Your task to perform on an android device: Go to Android settings Image 0: 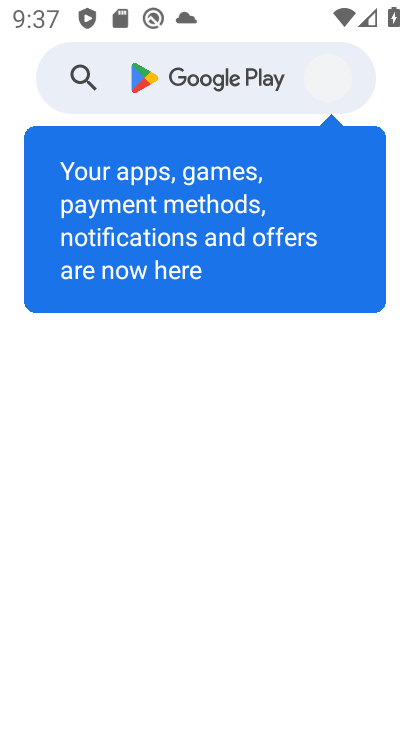
Step 0: press home button
Your task to perform on an android device: Go to Android settings Image 1: 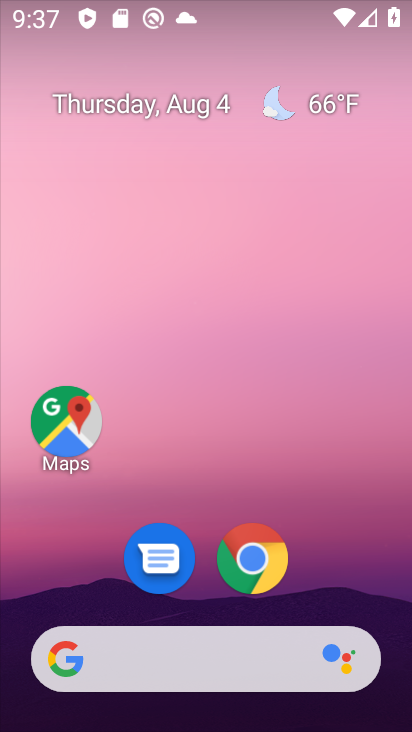
Step 1: drag from (357, 565) to (317, 21)
Your task to perform on an android device: Go to Android settings Image 2: 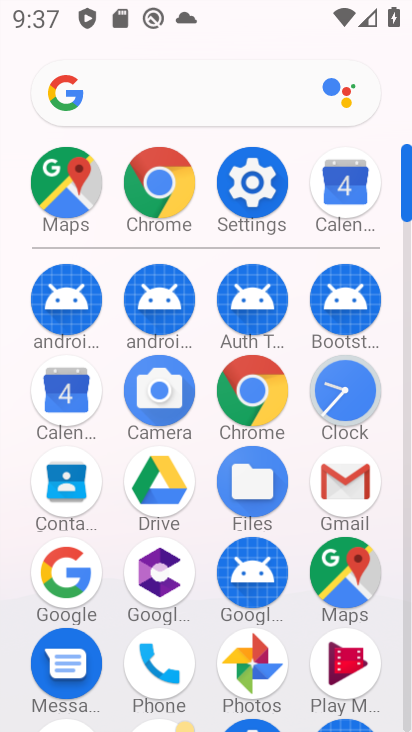
Step 2: drag from (196, 598) to (211, 314)
Your task to perform on an android device: Go to Android settings Image 3: 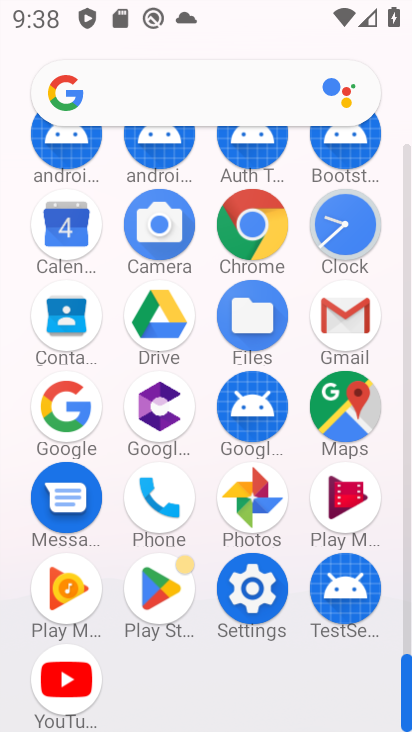
Step 3: click (254, 600)
Your task to perform on an android device: Go to Android settings Image 4: 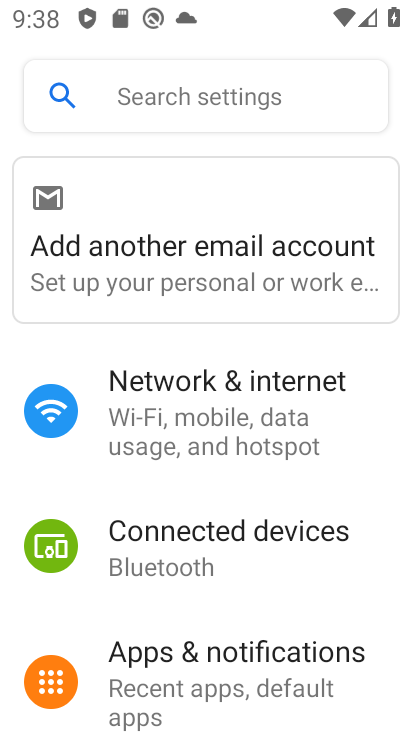
Step 4: task complete